Your task to perform on an android device: turn off smart reply in the gmail app Image 0: 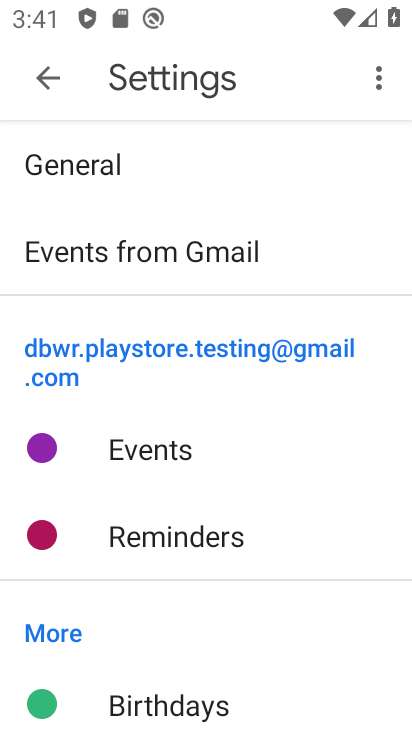
Step 0: press home button
Your task to perform on an android device: turn off smart reply in the gmail app Image 1: 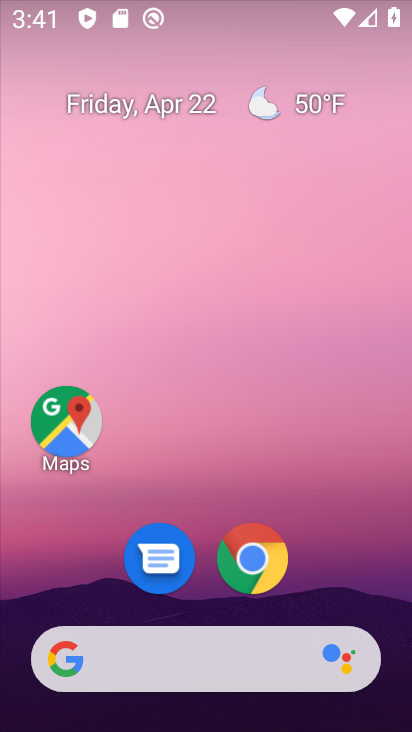
Step 1: drag from (315, 570) to (265, 215)
Your task to perform on an android device: turn off smart reply in the gmail app Image 2: 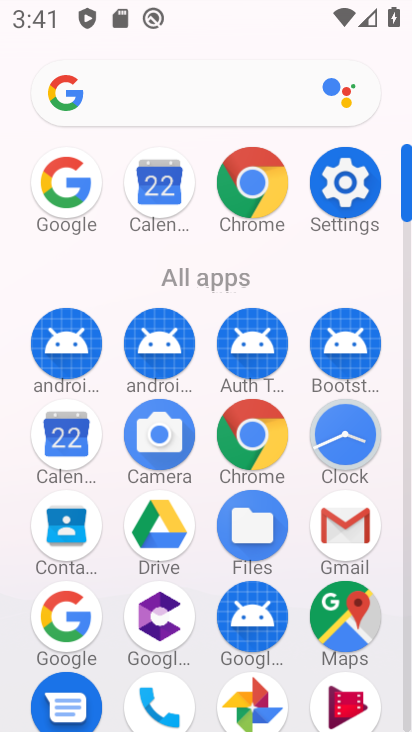
Step 2: click (361, 528)
Your task to perform on an android device: turn off smart reply in the gmail app Image 3: 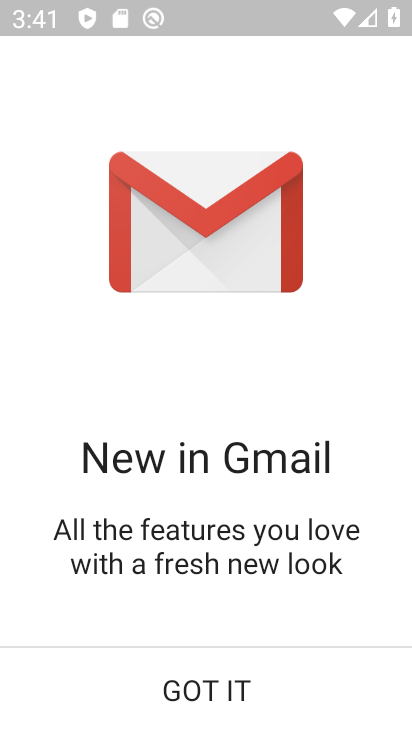
Step 3: click (209, 682)
Your task to perform on an android device: turn off smart reply in the gmail app Image 4: 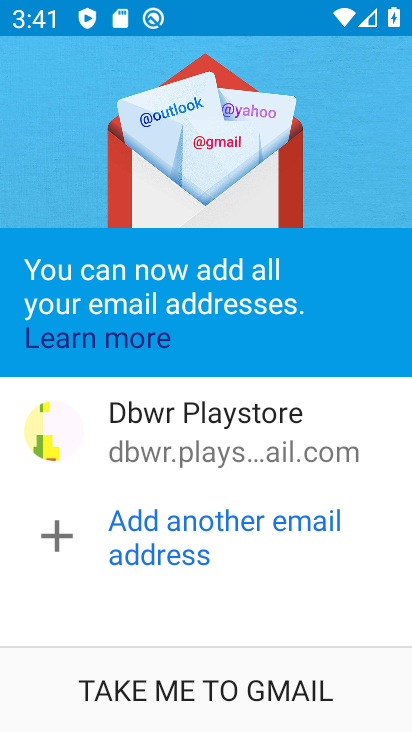
Step 4: click (193, 688)
Your task to perform on an android device: turn off smart reply in the gmail app Image 5: 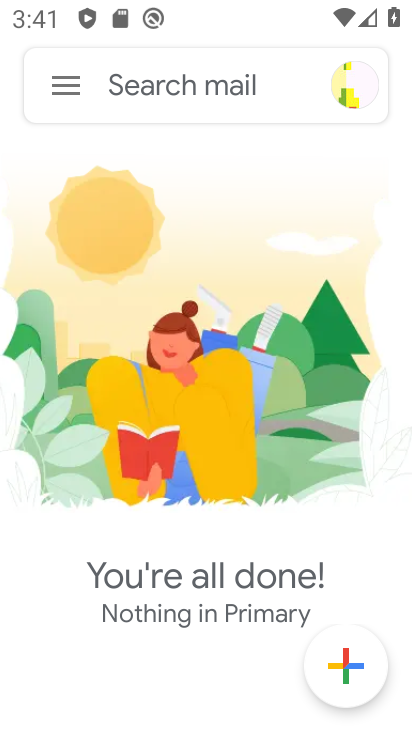
Step 5: click (59, 77)
Your task to perform on an android device: turn off smart reply in the gmail app Image 6: 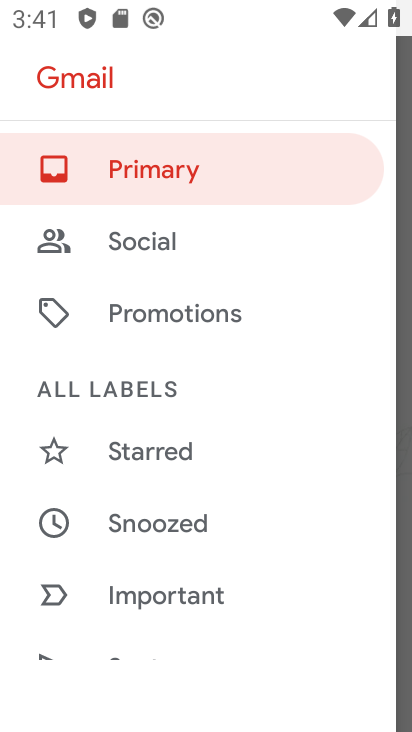
Step 6: drag from (227, 589) to (264, 86)
Your task to perform on an android device: turn off smart reply in the gmail app Image 7: 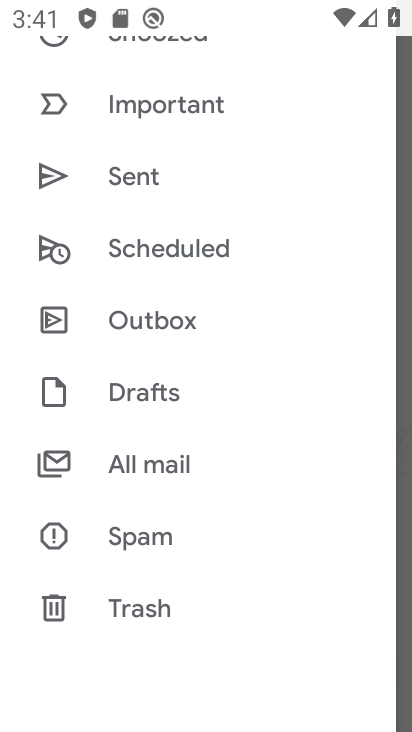
Step 7: drag from (229, 488) to (246, 171)
Your task to perform on an android device: turn off smart reply in the gmail app Image 8: 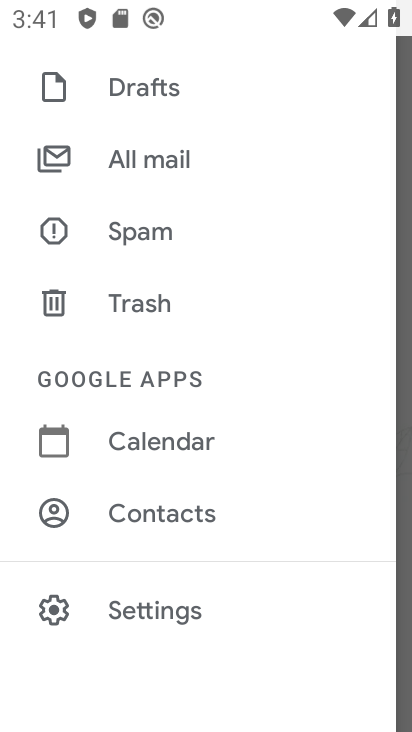
Step 8: click (177, 612)
Your task to perform on an android device: turn off smart reply in the gmail app Image 9: 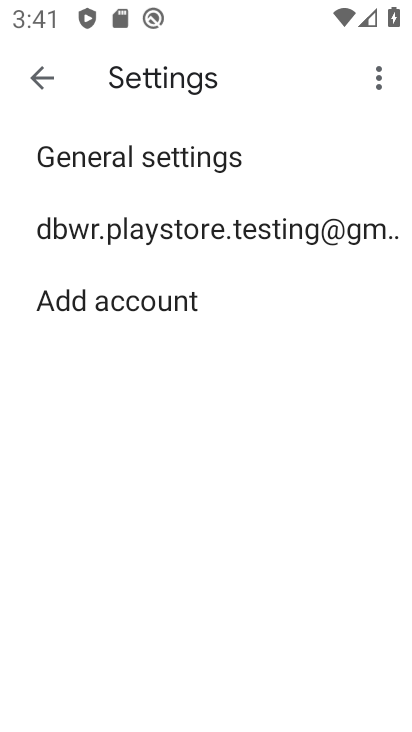
Step 9: click (235, 231)
Your task to perform on an android device: turn off smart reply in the gmail app Image 10: 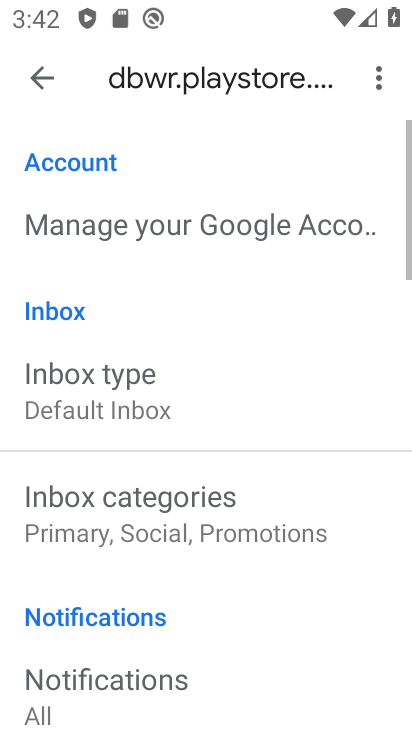
Step 10: drag from (208, 578) to (320, 168)
Your task to perform on an android device: turn off smart reply in the gmail app Image 11: 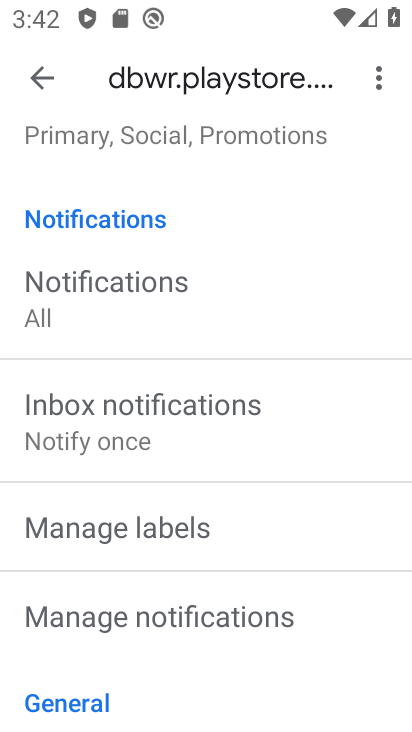
Step 11: drag from (238, 591) to (291, 205)
Your task to perform on an android device: turn off smart reply in the gmail app Image 12: 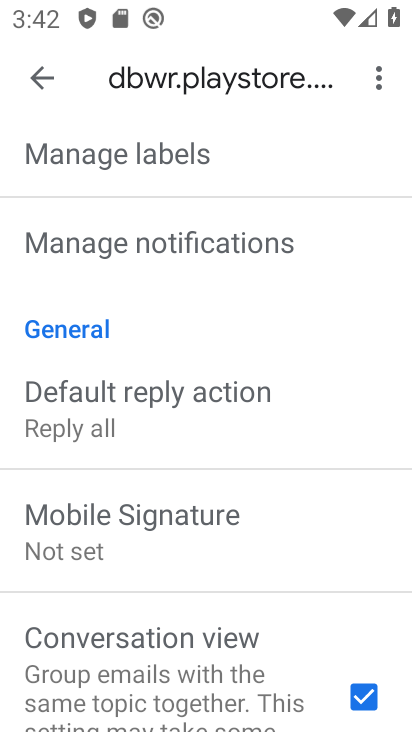
Step 12: drag from (268, 571) to (250, 317)
Your task to perform on an android device: turn off smart reply in the gmail app Image 13: 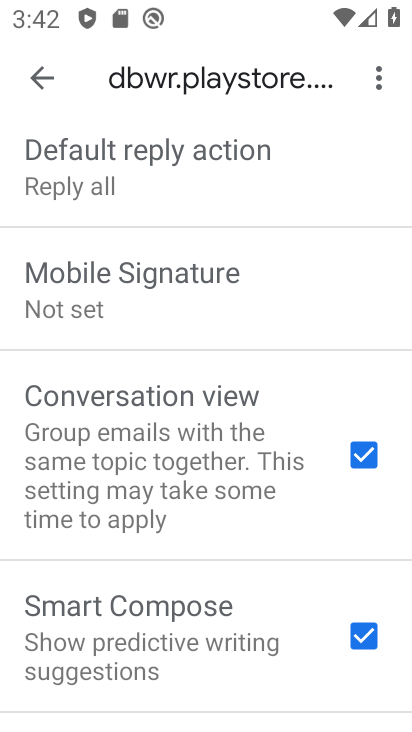
Step 13: drag from (248, 641) to (322, 192)
Your task to perform on an android device: turn off smart reply in the gmail app Image 14: 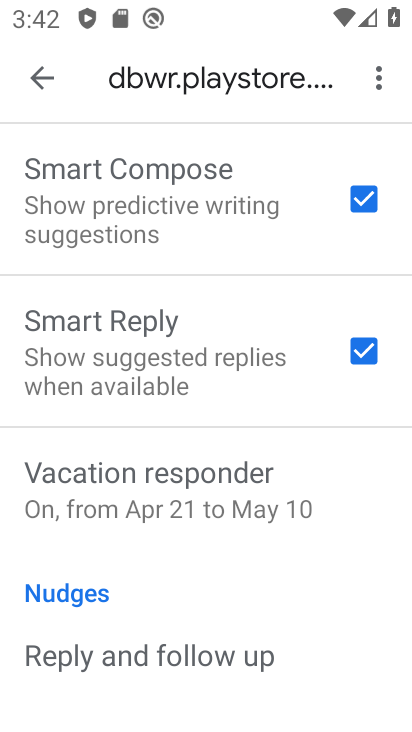
Step 14: click (367, 354)
Your task to perform on an android device: turn off smart reply in the gmail app Image 15: 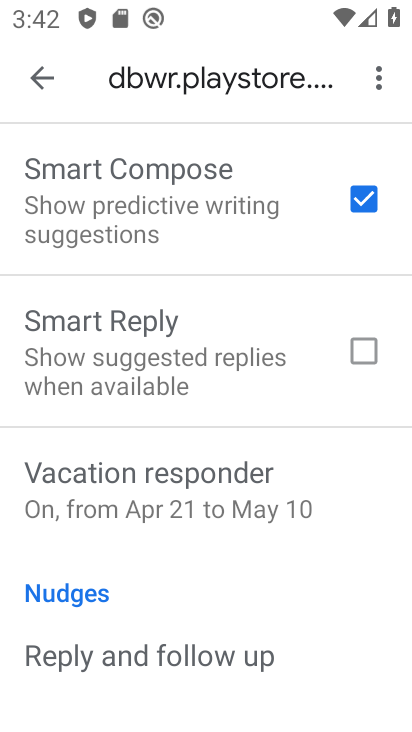
Step 15: task complete